Your task to perform on an android device: delete a single message in the gmail app Image 0: 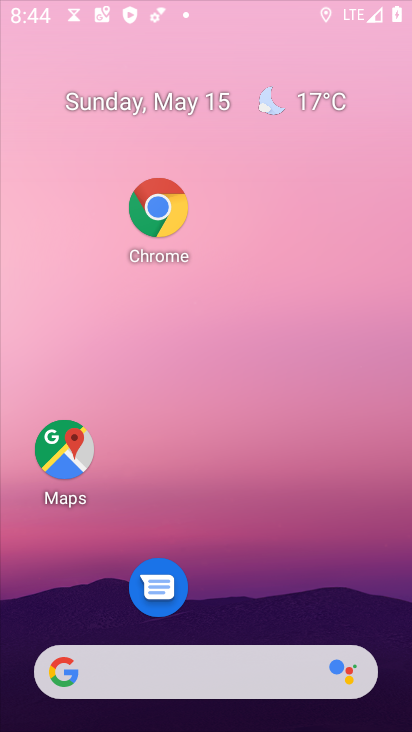
Step 0: press home button
Your task to perform on an android device: delete a single message in the gmail app Image 1: 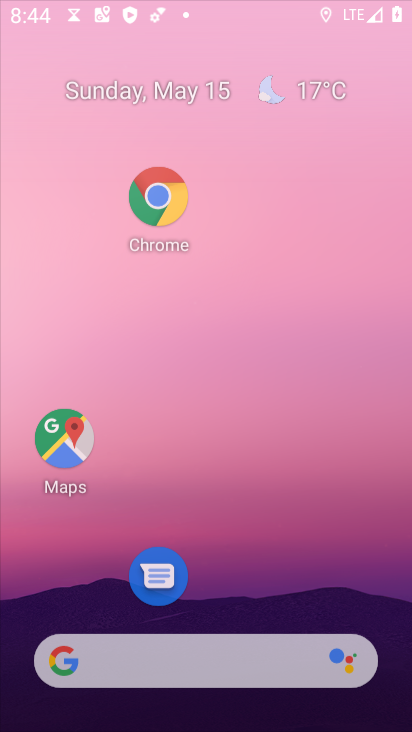
Step 1: drag from (234, 650) to (141, 170)
Your task to perform on an android device: delete a single message in the gmail app Image 2: 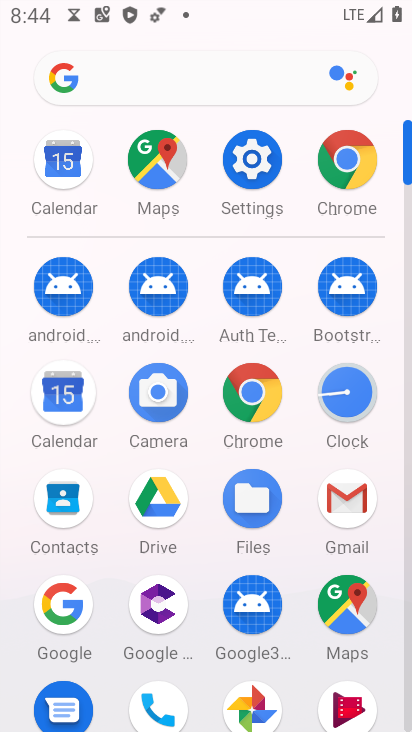
Step 2: click (342, 493)
Your task to perform on an android device: delete a single message in the gmail app Image 3: 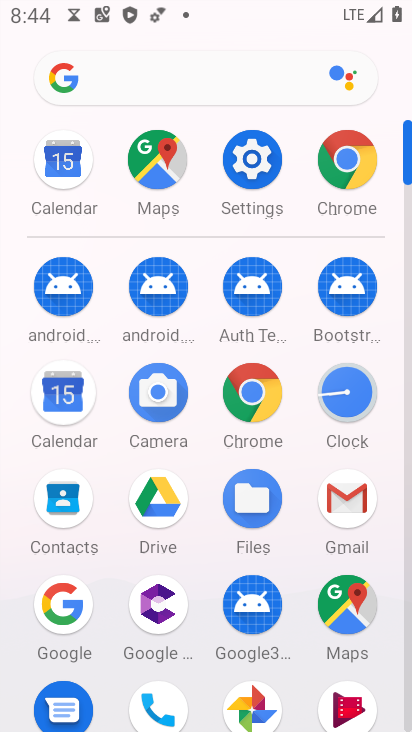
Step 3: click (345, 495)
Your task to perform on an android device: delete a single message in the gmail app Image 4: 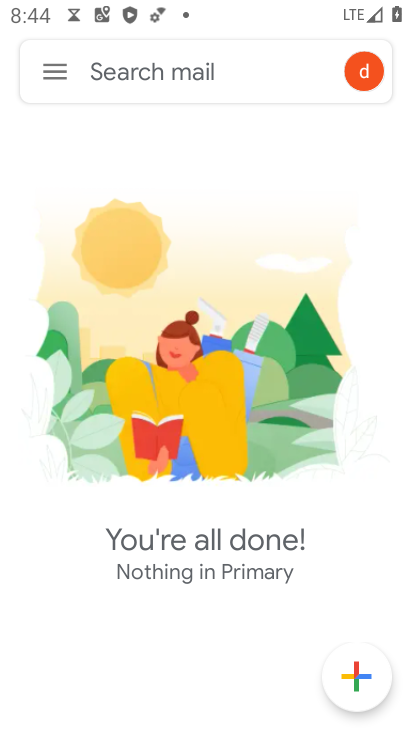
Step 4: click (62, 71)
Your task to perform on an android device: delete a single message in the gmail app Image 5: 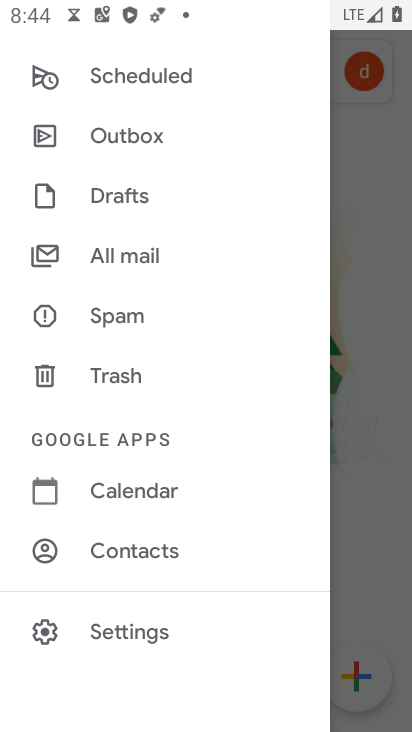
Step 5: click (125, 258)
Your task to perform on an android device: delete a single message in the gmail app Image 6: 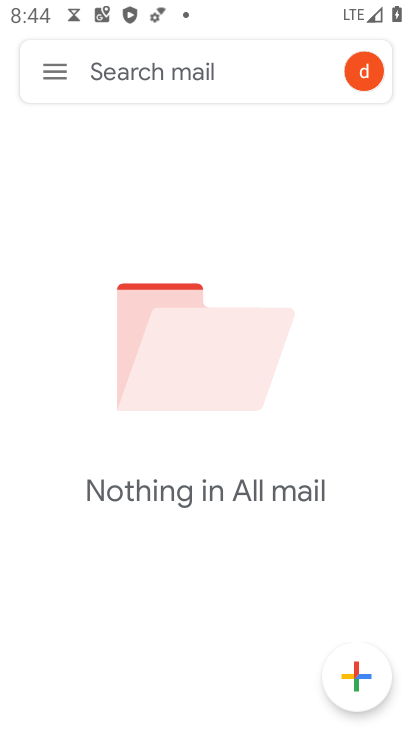
Step 6: task complete